Your task to perform on an android device: turn notification dots off Image 0: 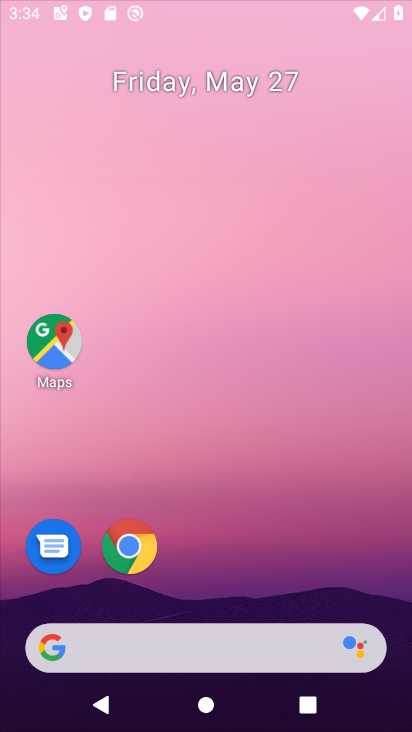
Step 0: click (334, 219)
Your task to perform on an android device: turn notification dots off Image 1: 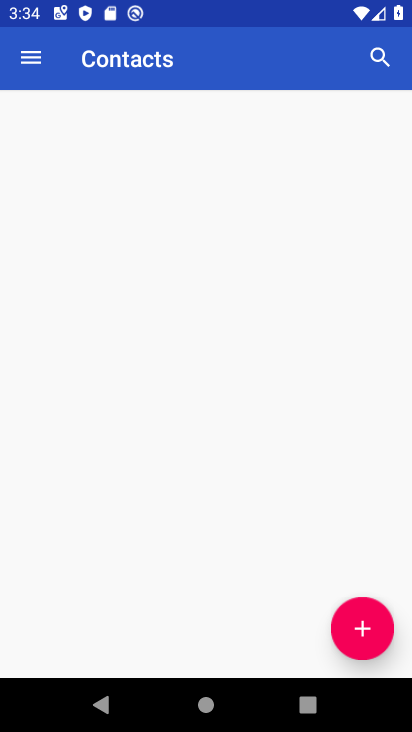
Step 1: press home button
Your task to perform on an android device: turn notification dots off Image 2: 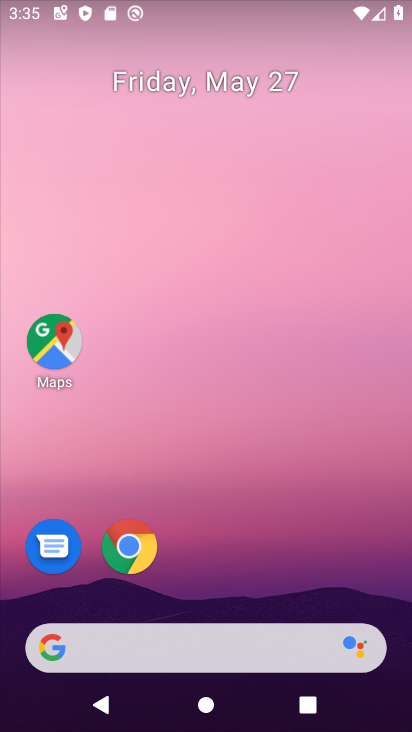
Step 2: drag from (398, 617) to (329, 149)
Your task to perform on an android device: turn notification dots off Image 3: 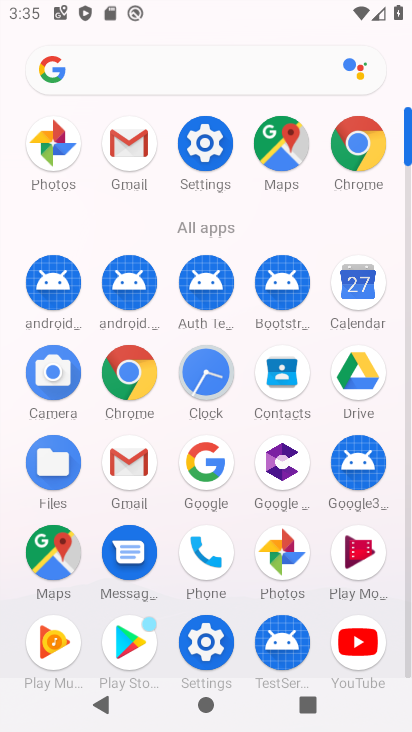
Step 3: click (205, 141)
Your task to perform on an android device: turn notification dots off Image 4: 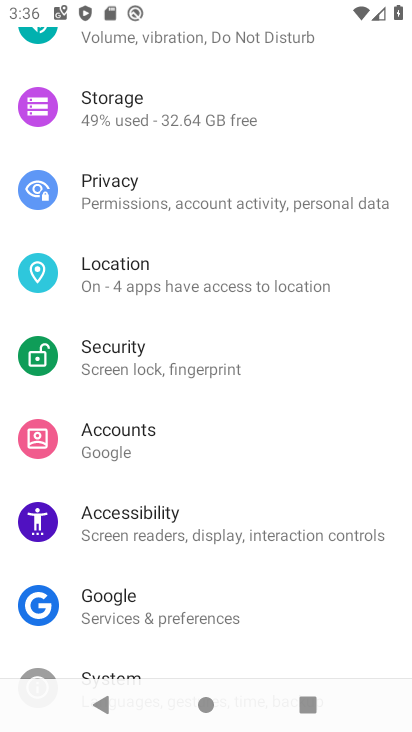
Step 4: drag from (277, 649) to (293, 190)
Your task to perform on an android device: turn notification dots off Image 5: 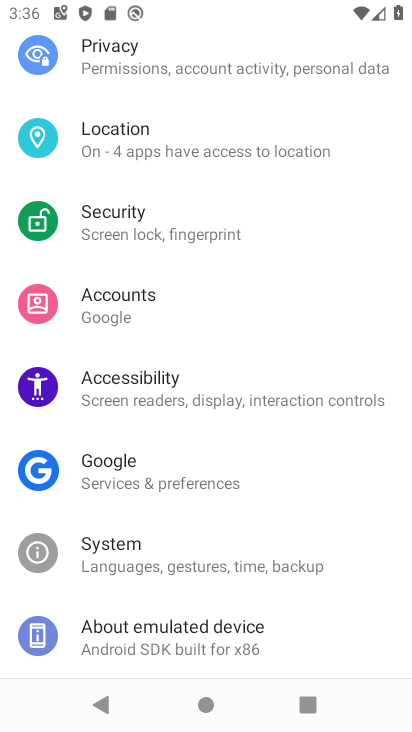
Step 5: drag from (299, 645) to (307, 311)
Your task to perform on an android device: turn notification dots off Image 6: 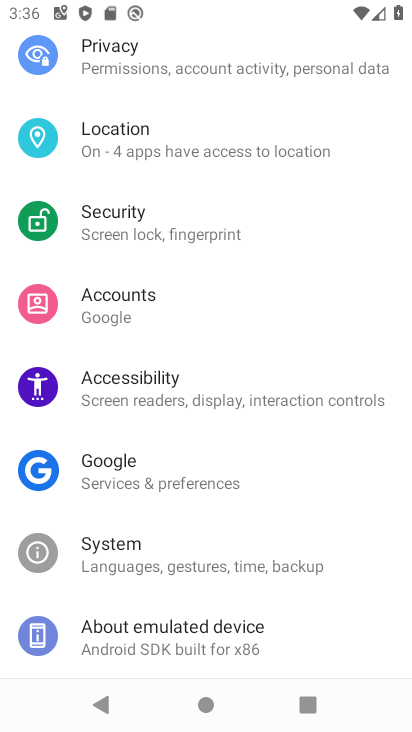
Step 6: drag from (291, 113) to (320, 545)
Your task to perform on an android device: turn notification dots off Image 7: 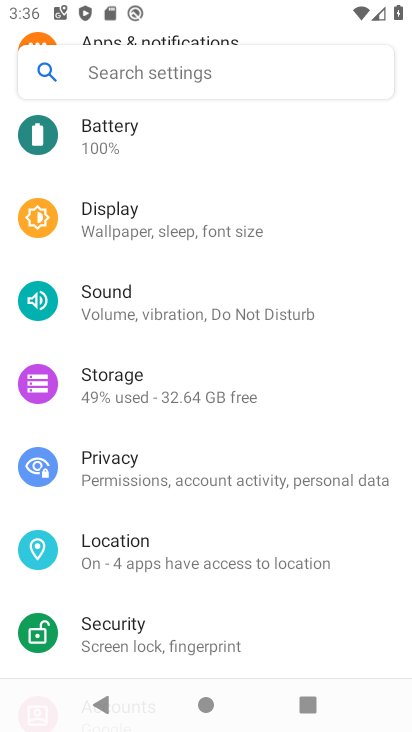
Step 7: drag from (246, 170) to (271, 563)
Your task to perform on an android device: turn notification dots off Image 8: 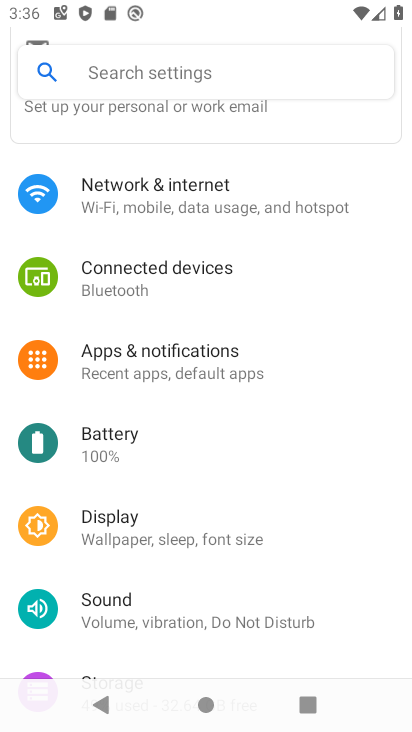
Step 8: click (137, 361)
Your task to perform on an android device: turn notification dots off Image 9: 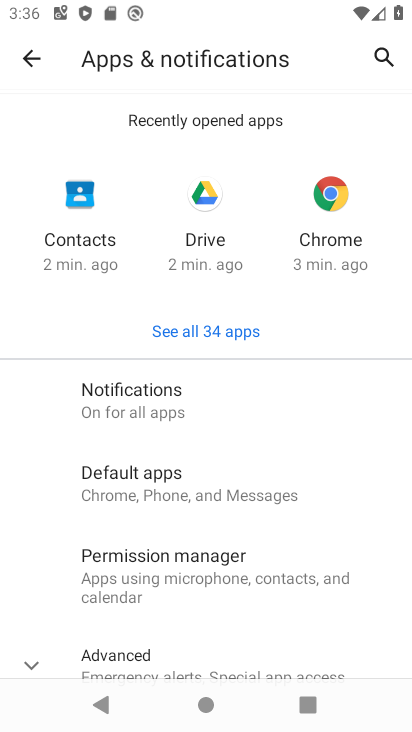
Step 9: click (92, 400)
Your task to perform on an android device: turn notification dots off Image 10: 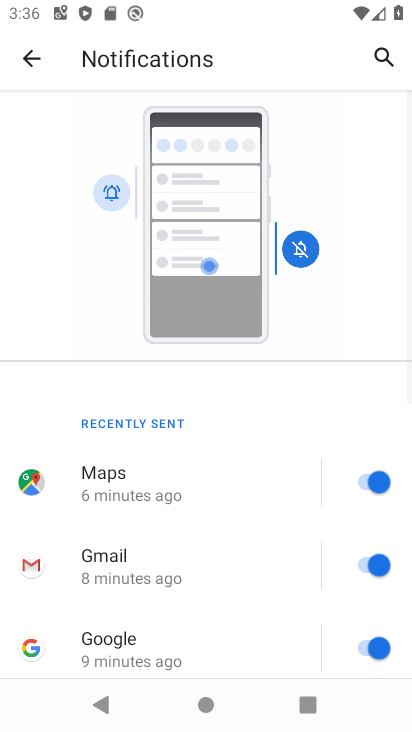
Step 10: drag from (234, 641) to (240, 284)
Your task to perform on an android device: turn notification dots off Image 11: 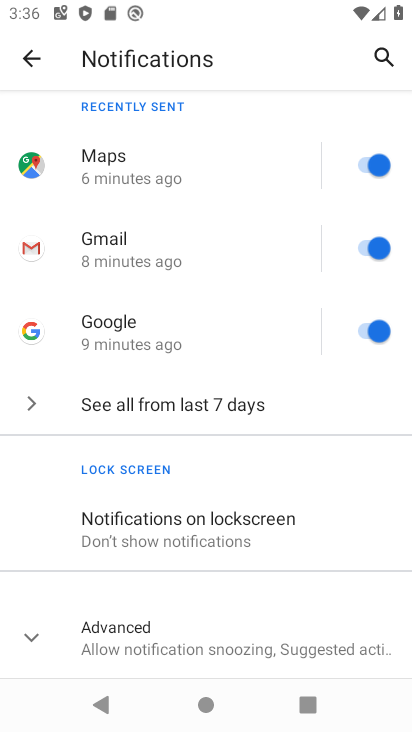
Step 11: click (50, 626)
Your task to perform on an android device: turn notification dots off Image 12: 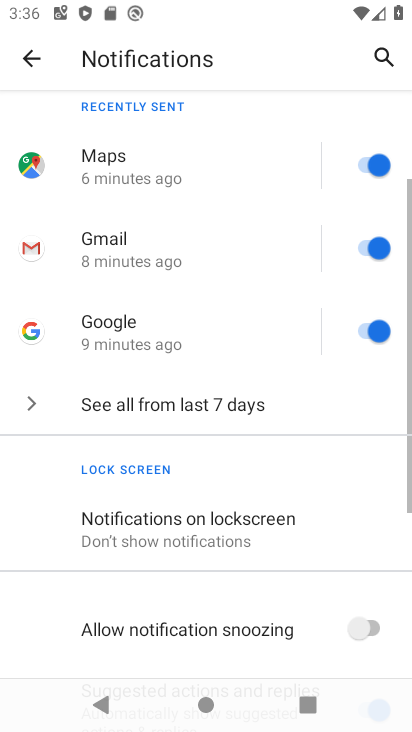
Step 12: drag from (284, 619) to (297, 242)
Your task to perform on an android device: turn notification dots off Image 13: 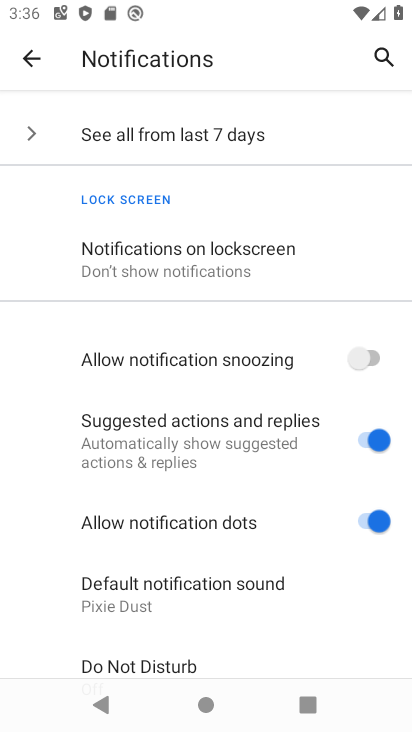
Step 13: click (356, 516)
Your task to perform on an android device: turn notification dots off Image 14: 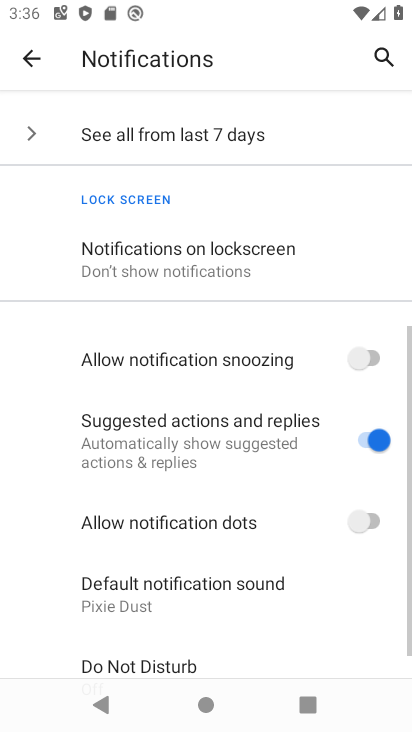
Step 14: task complete